Your task to perform on an android device: Go to Google Image 0: 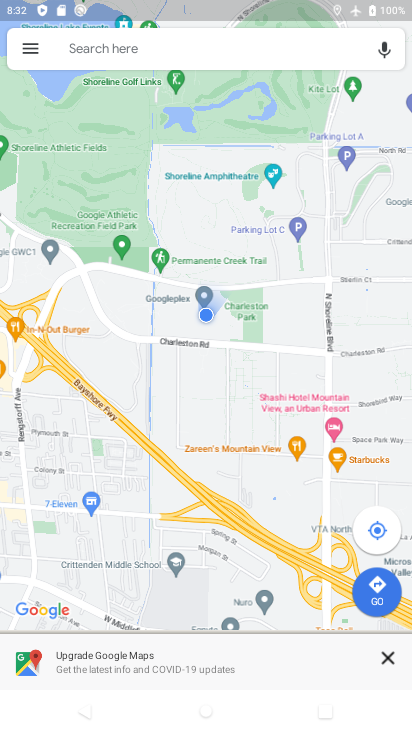
Step 0: press home button
Your task to perform on an android device: Go to Google Image 1: 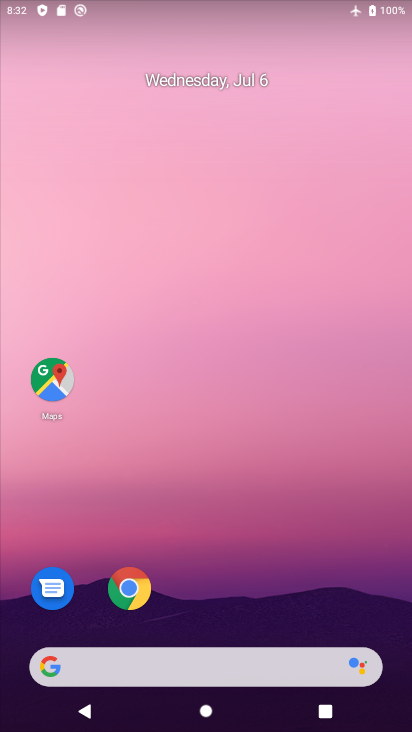
Step 1: click (41, 668)
Your task to perform on an android device: Go to Google Image 2: 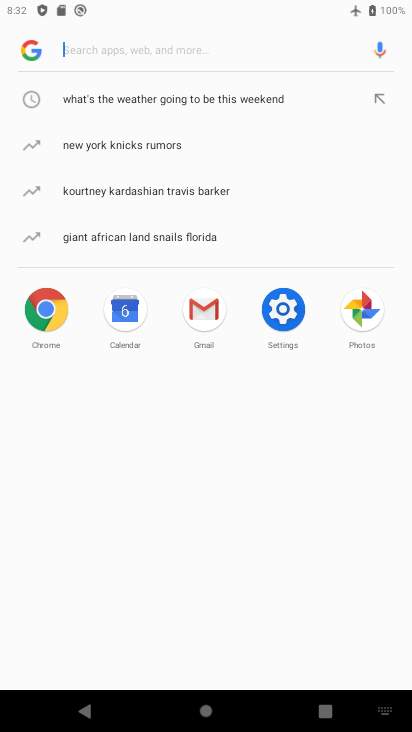
Step 2: click (28, 44)
Your task to perform on an android device: Go to Google Image 3: 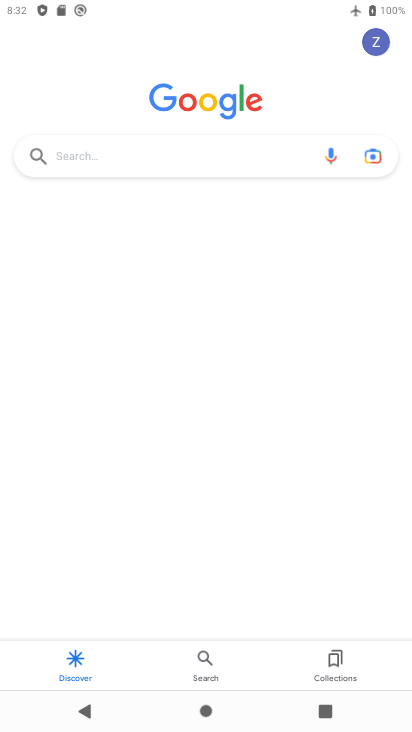
Step 3: task complete